Your task to perform on an android device: Go to accessibility settings Image 0: 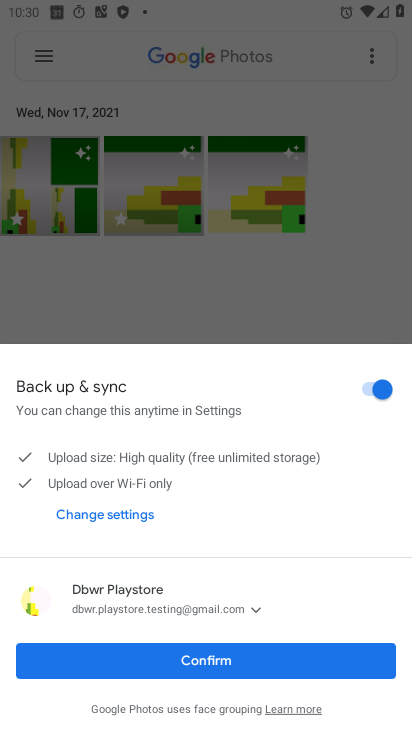
Step 0: press home button
Your task to perform on an android device: Go to accessibility settings Image 1: 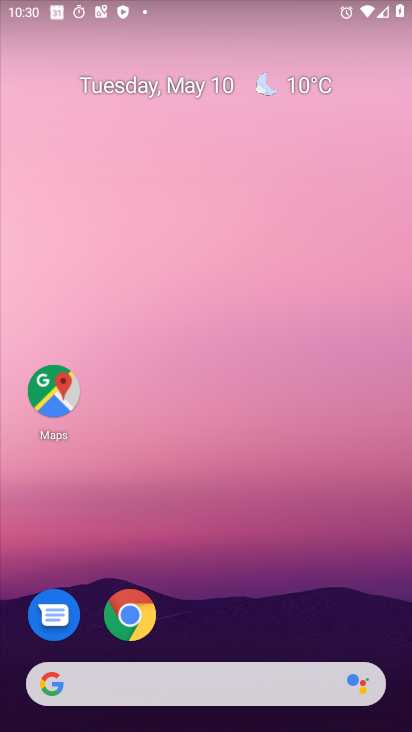
Step 1: drag from (214, 636) to (231, 70)
Your task to perform on an android device: Go to accessibility settings Image 2: 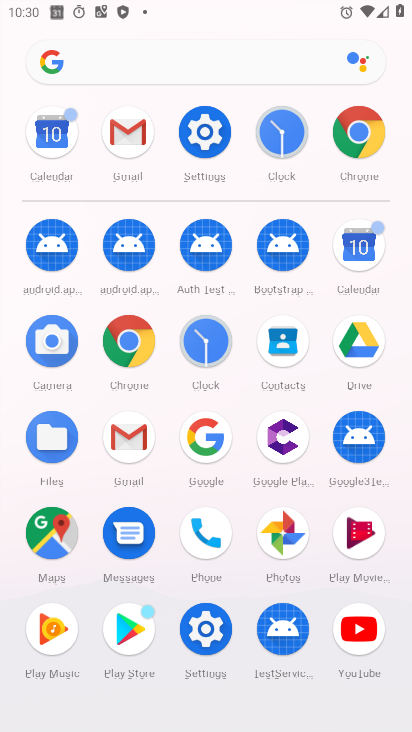
Step 2: click (204, 121)
Your task to perform on an android device: Go to accessibility settings Image 3: 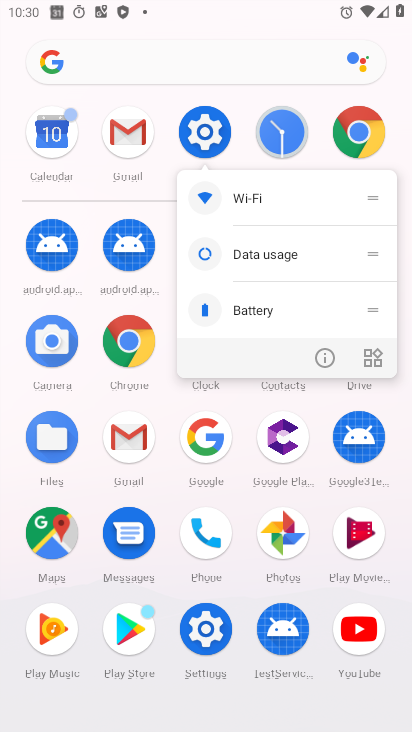
Step 3: click (204, 129)
Your task to perform on an android device: Go to accessibility settings Image 4: 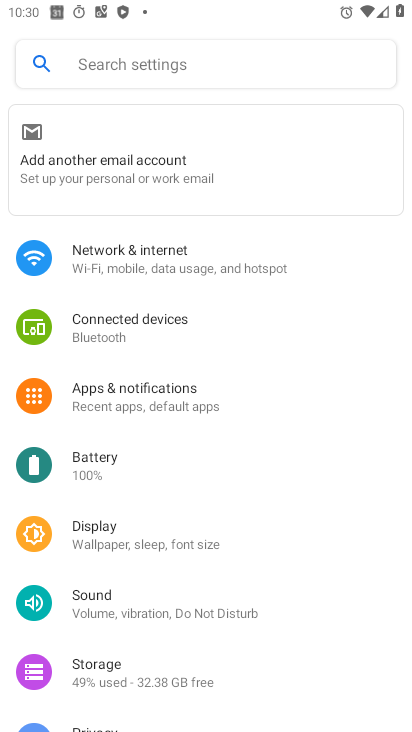
Step 4: drag from (168, 662) to (168, 469)
Your task to perform on an android device: Go to accessibility settings Image 5: 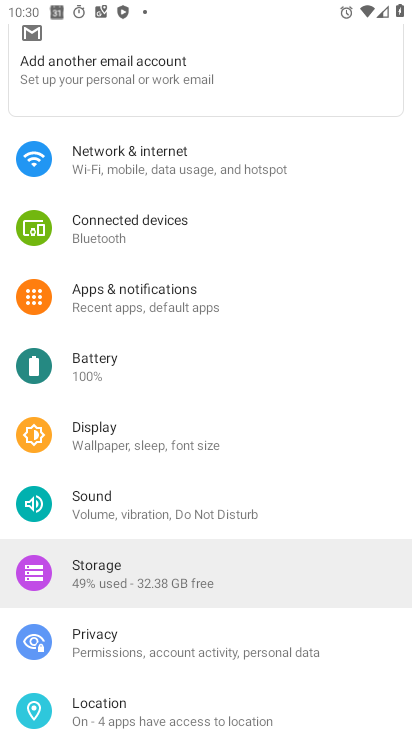
Step 5: drag from (168, 337) to (179, 154)
Your task to perform on an android device: Go to accessibility settings Image 6: 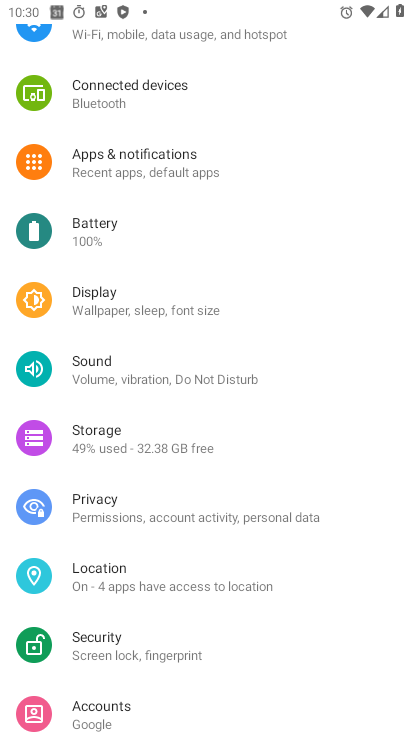
Step 6: drag from (132, 674) to (137, 482)
Your task to perform on an android device: Go to accessibility settings Image 7: 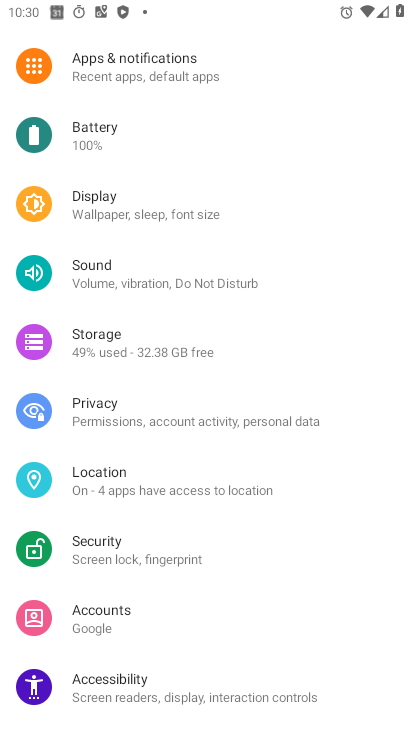
Step 7: drag from (154, 363) to (174, 244)
Your task to perform on an android device: Go to accessibility settings Image 8: 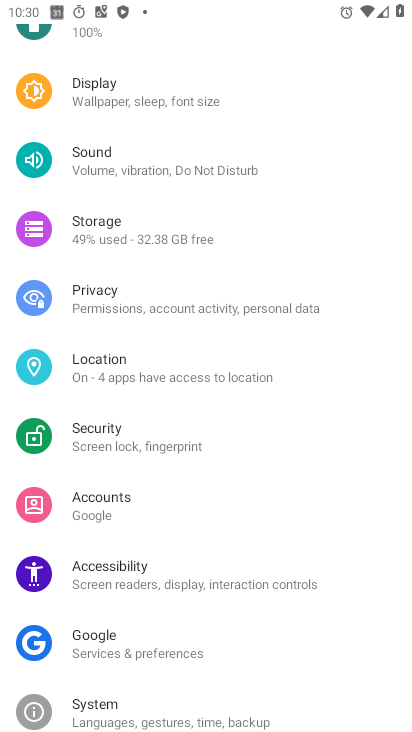
Step 8: click (155, 564)
Your task to perform on an android device: Go to accessibility settings Image 9: 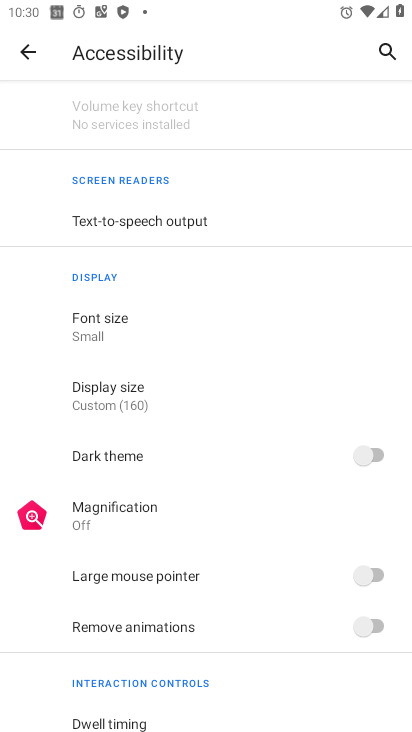
Step 9: task complete